Your task to perform on an android device: Search for Mexican restaurants on Maps Image 0: 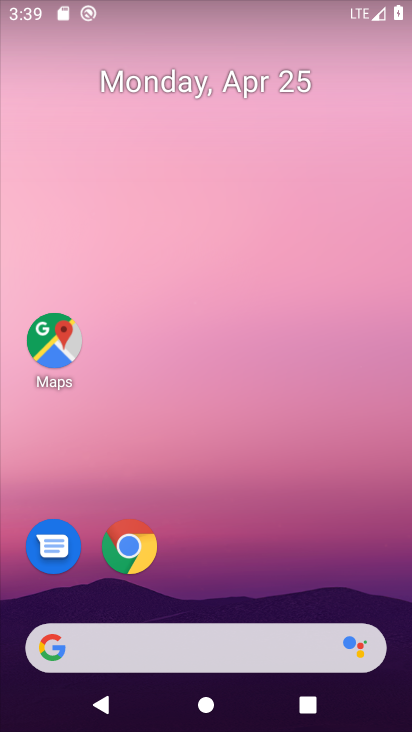
Step 0: drag from (292, 488) to (355, 1)
Your task to perform on an android device: Search for Mexican restaurants on Maps Image 1: 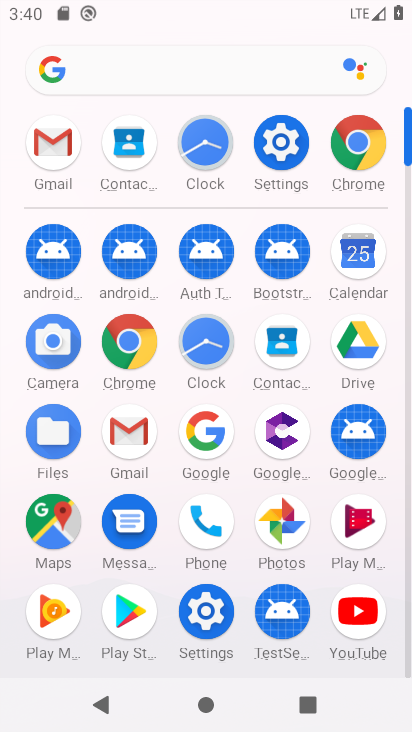
Step 1: click (46, 529)
Your task to perform on an android device: Search for Mexican restaurants on Maps Image 2: 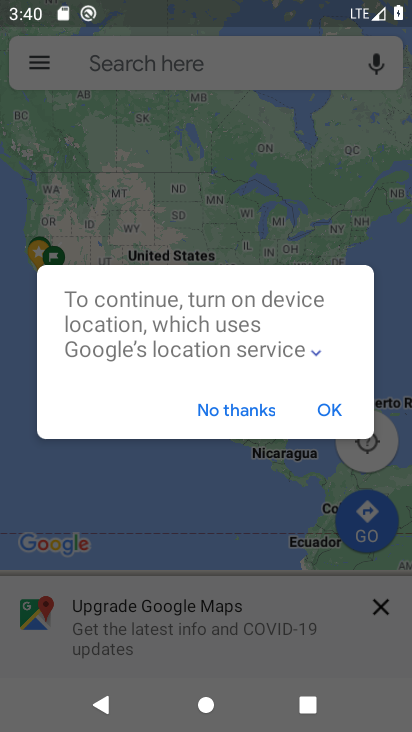
Step 2: click (195, 73)
Your task to perform on an android device: Search for Mexican restaurants on Maps Image 3: 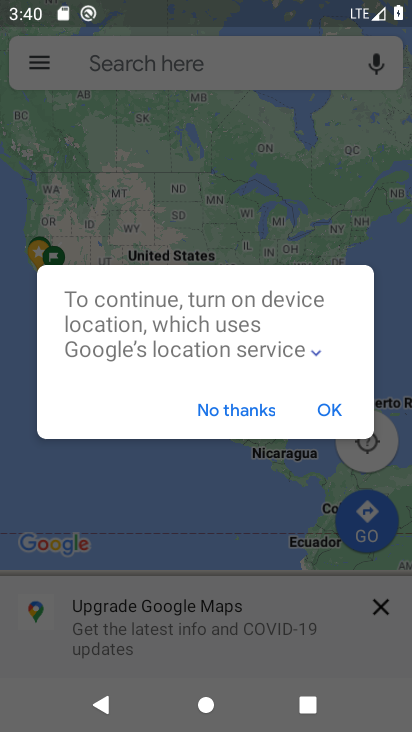
Step 3: click (226, 416)
Your task to perform on an android device: Search for Mexican restaurants on Maps Image 4: 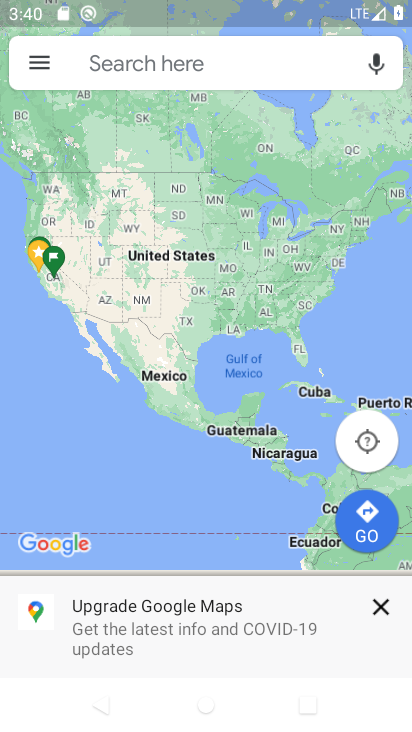
Step 4: click (222, 68)
Your task to perform on an android device: Search for Mexican restaurants on Maps Image 5: 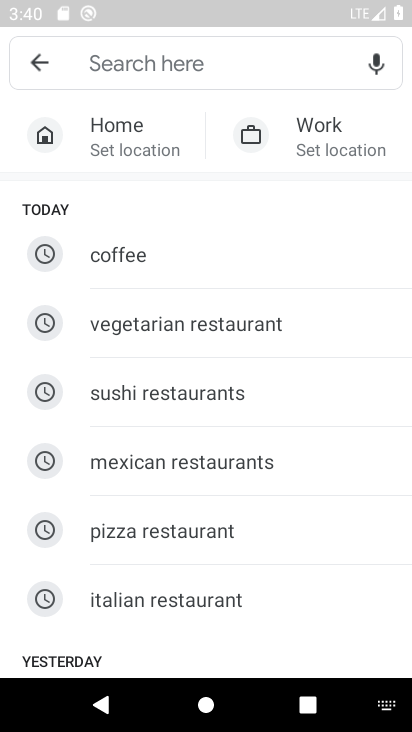
Step 5: type "mexican restaurants"
Your task to perform on an android device: Search for Mexican restaurants on Maps Image 6: 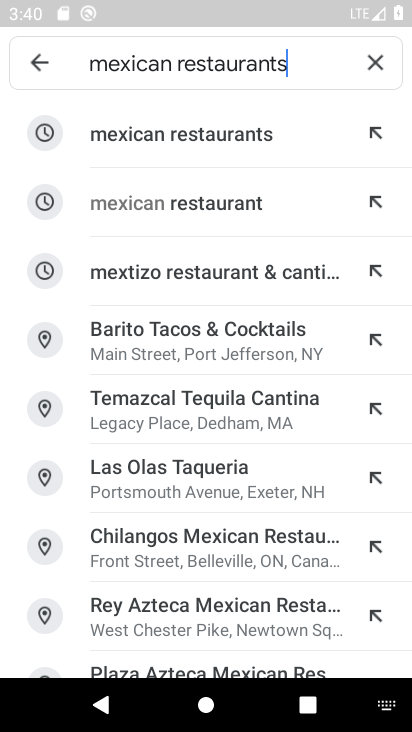
Step 6: click (160, 136)
Your task to perform on an android device: Search for Mexican restaurants on Maps Image 7: 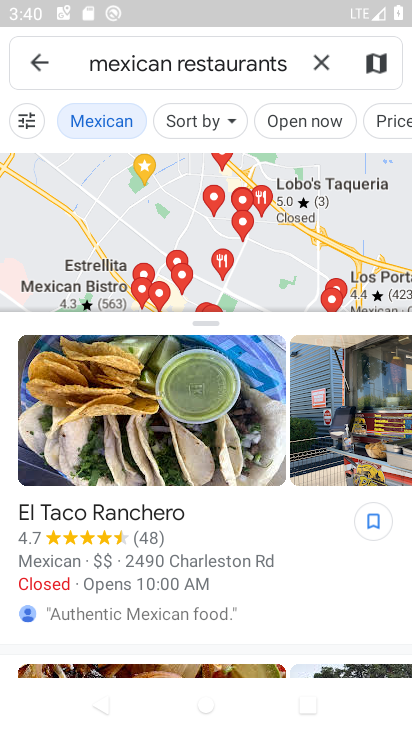
Step 7: task complete